Your task to perform on an android device: Do I have any events tomorrow? Image 0: 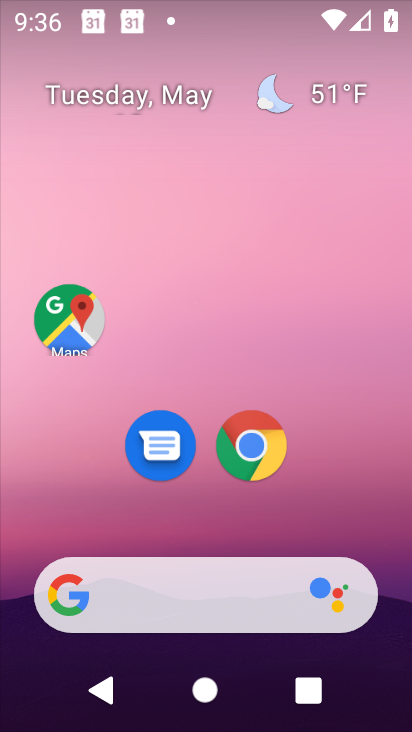
Step 0: drag from (197, 584) to (170, 7)
Your task to perform on an android device: Do I have any events tomorrow? Image 1: 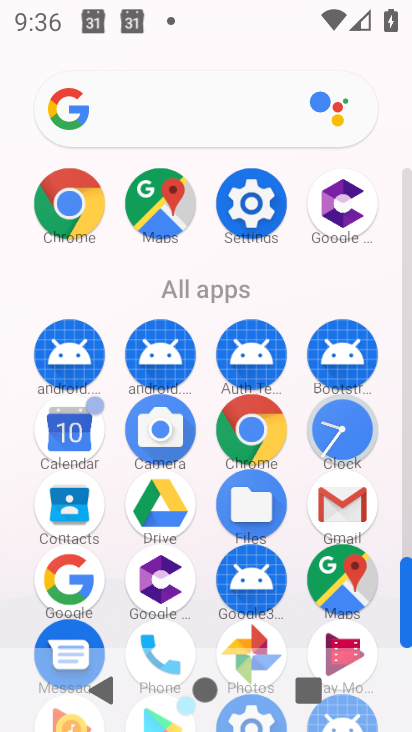
Step 1: click (85, 423)
Your task to perform on an android device: Do I have any events tomorrow? Image 2: 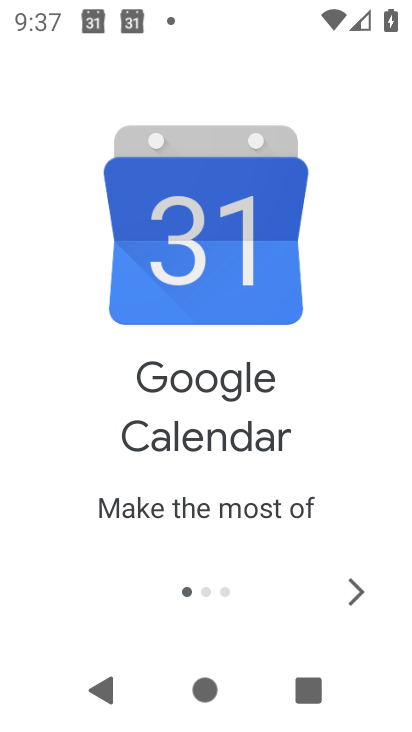
Step 2: click (353, 594)
Your task to perform on an android device: Do I have any events tomorrow? Image 3: 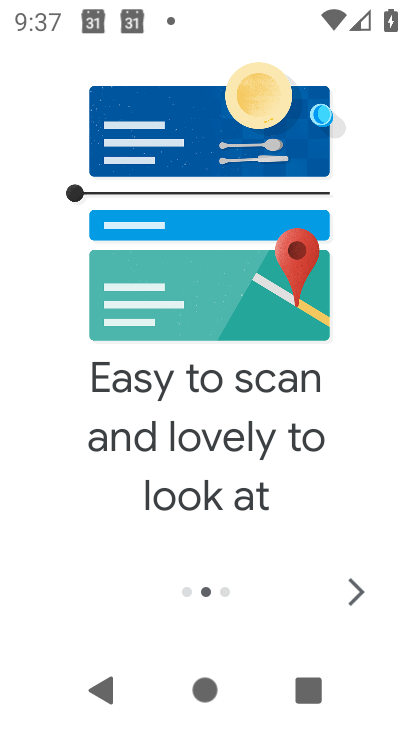
Step 3: click (368, 600)
Your task to perform on an android device: Do I have any events tomorrow? Image 4: 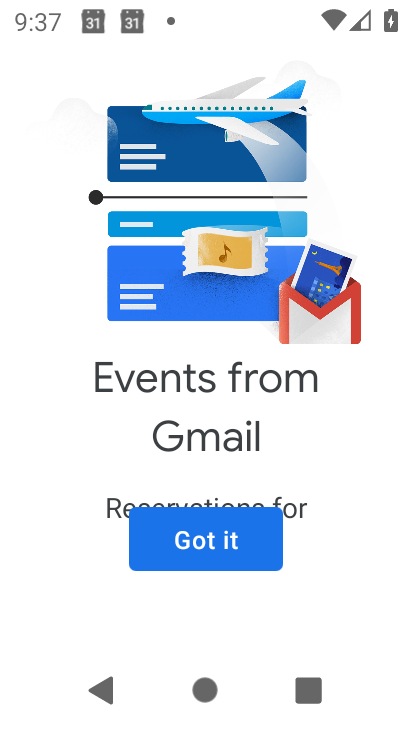
Step 4: click (168, 521)
Your task to perform on an android device: Do I have any events tomorrow? Image 5: 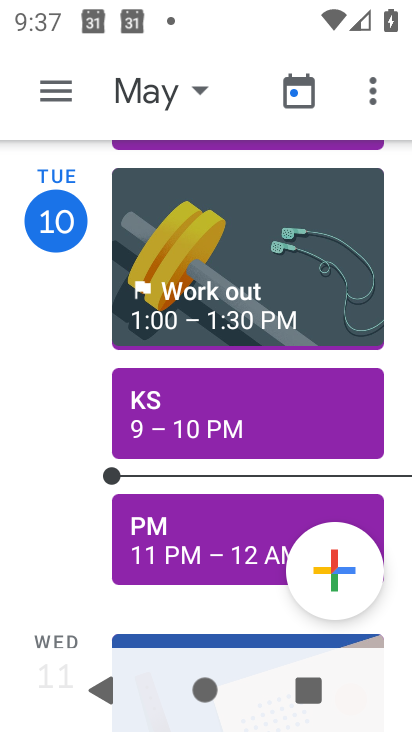
Step 5: task complete